Your task to perform on an android device: uninstall "ColorNote Notepad Notes" Image 0: 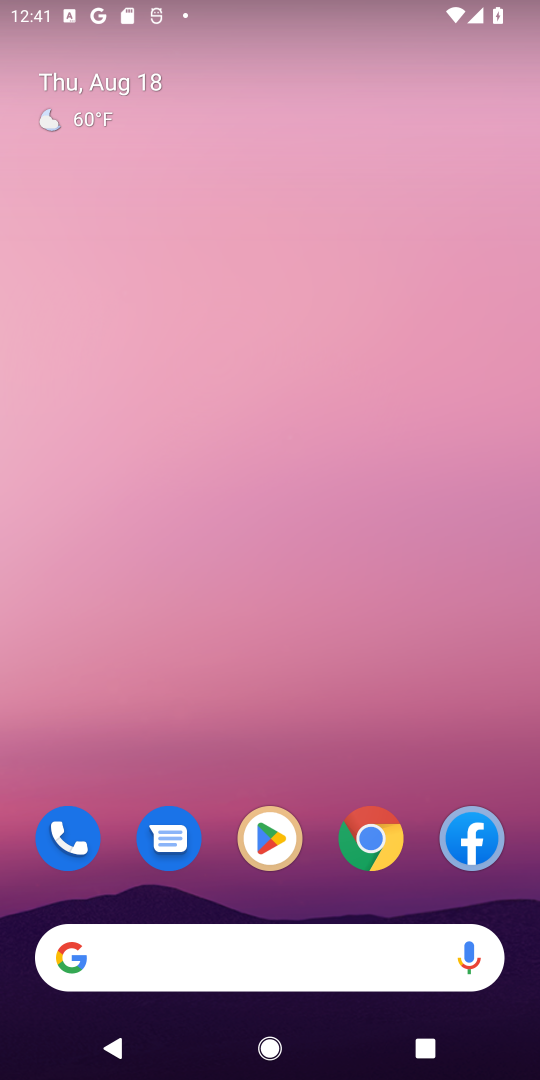
Step 0: click (277, 823)
Your task to perform on an android device: uninstall "ColorNote Notepad Notes" Image 1: 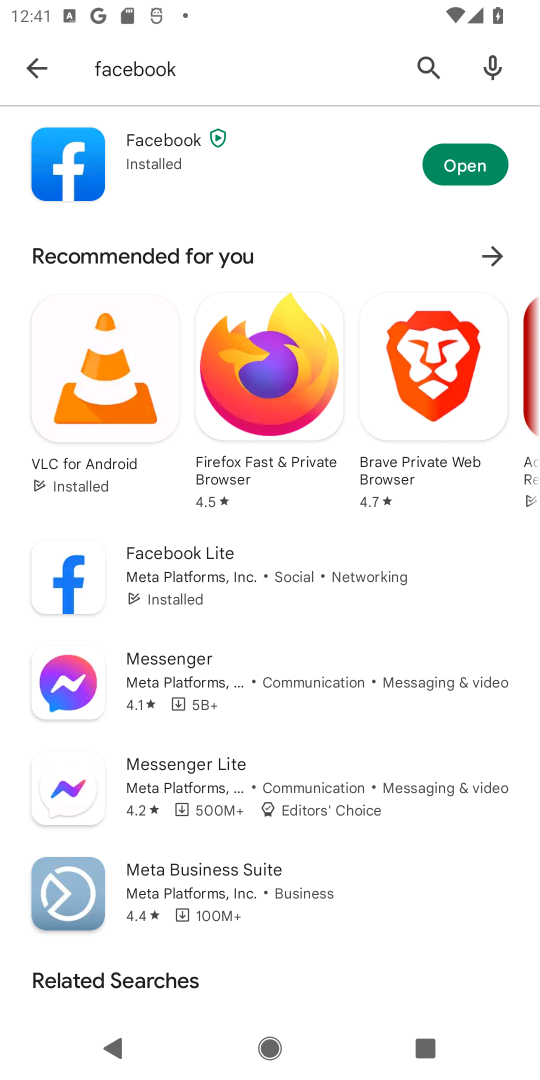
Step 1: click (417, 70)
Your task to perform on an android device: uninstall "ColorNote Notepad Notes" Image 2: 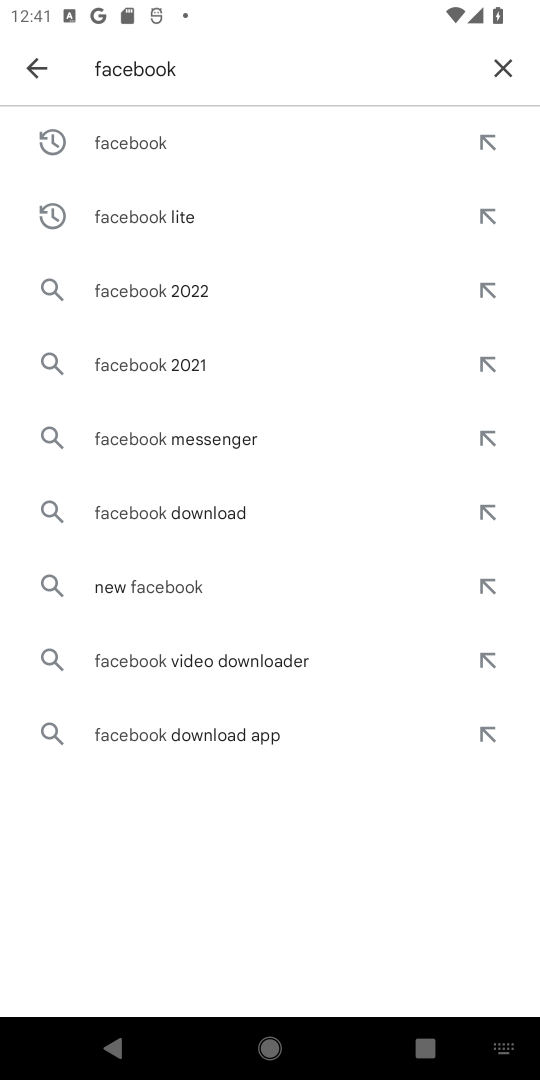
Step 2: click (486, 60)
Your task to perform on an android device: uninstall "ColorNote Notepad Notes" Image 3: 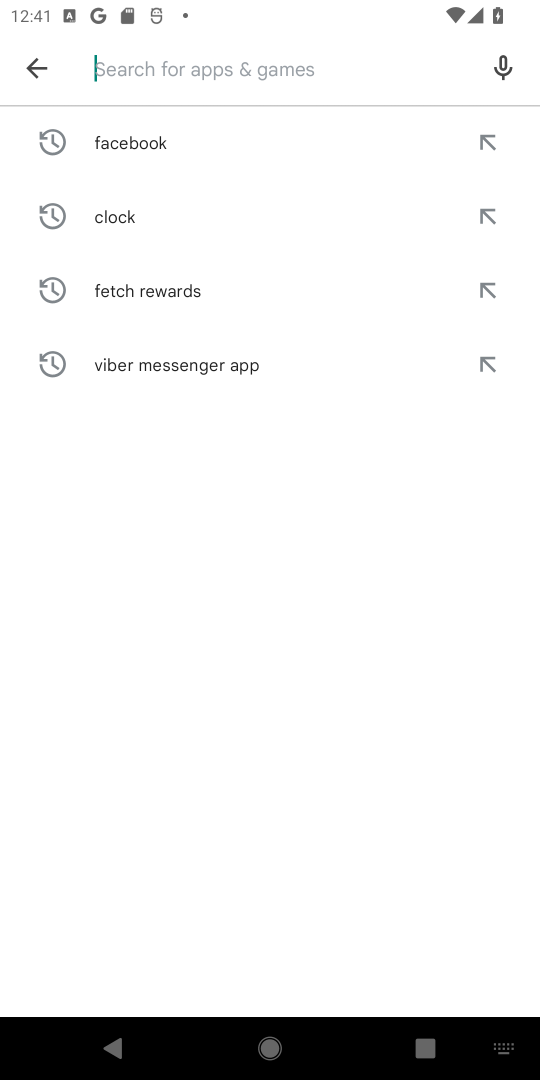
Step 3: type "ColorNote Notepad Notes"
Your task to perform on an android device: uninstall "ColorNote Notepad Notes" Image 4: 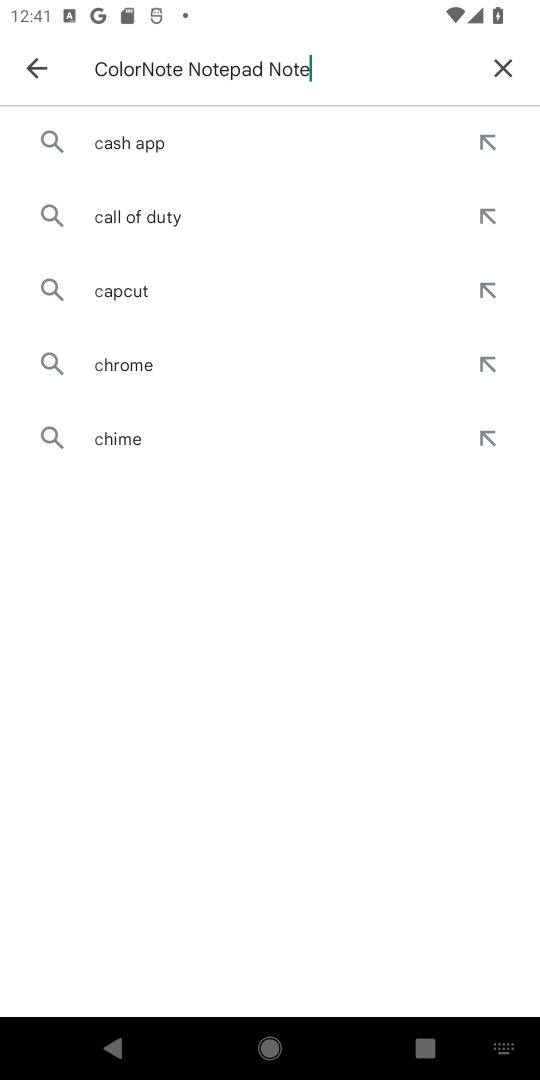
Step 4: type ""
Your task to perform on an android device: uninstall "ColorNote Notepad Notes" Image 5: 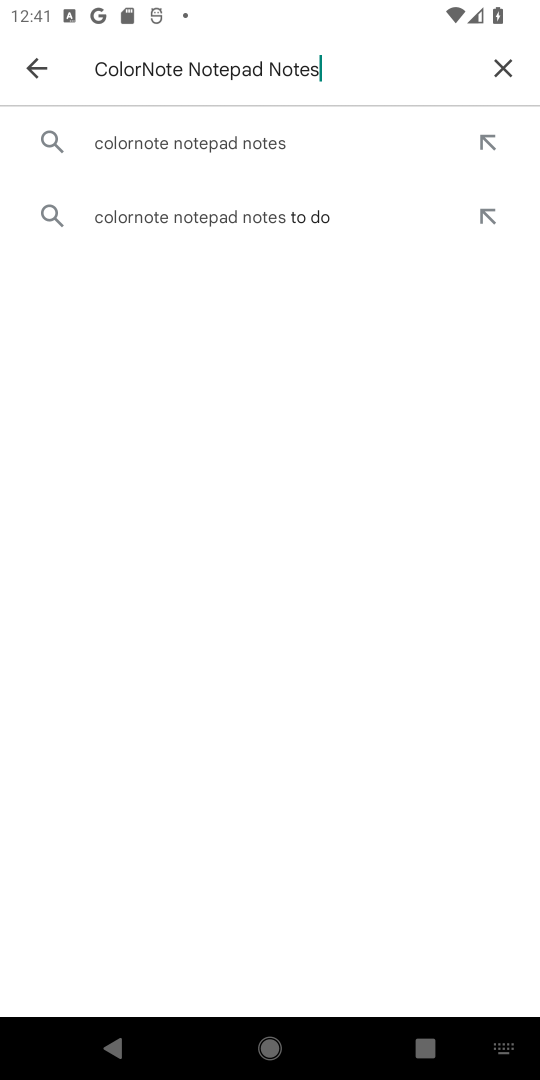
Step 5: click (243, 150)
Your task to perform on an android device: uninstall "ColorNote Notepad Notes" Image 6: 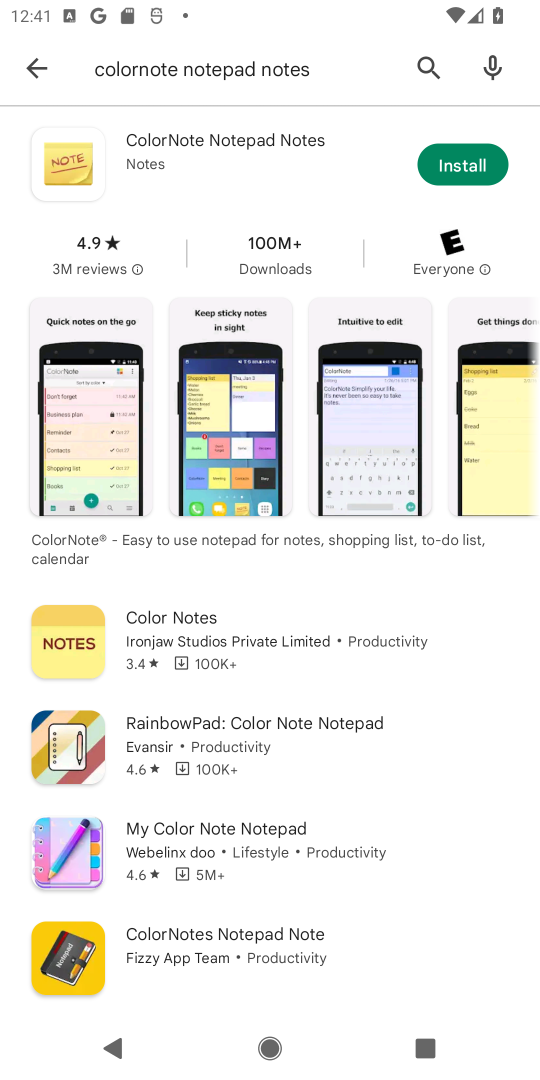
Step 6: task complete